Your task to perform on an android device: Do I have any events tomorrow? Image 0: 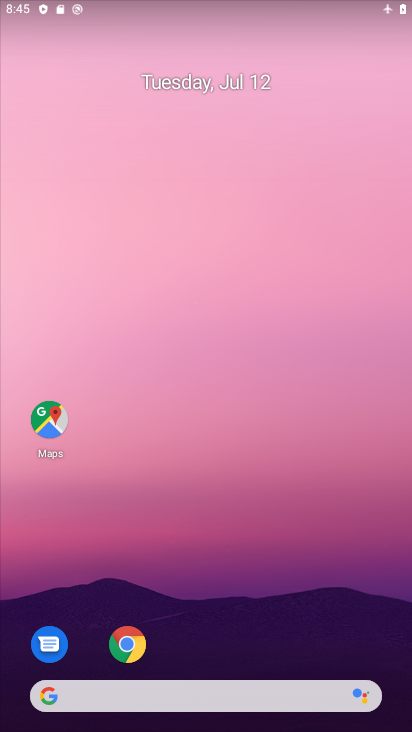
Step 0: drag from (220, 649) to (236, 144)
Your task to perform on an android device: Do I have any events tomorrow? Image 1: 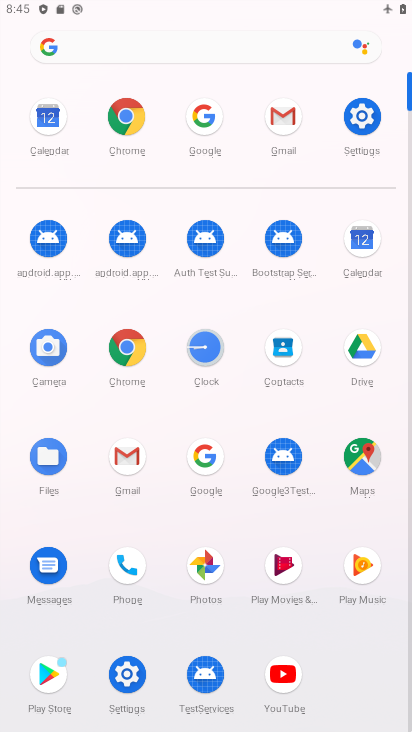
Step 1: click (369, 257)
Your task to perform on an android device: Do I have any events tomorrow? Image 2: 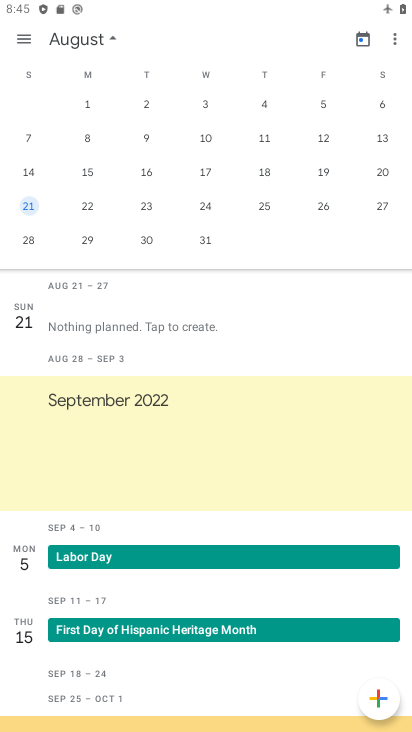
Step 2: click (90, 206)
Your task to perform on an android device: Do I have any events tomorrow? Image 3: 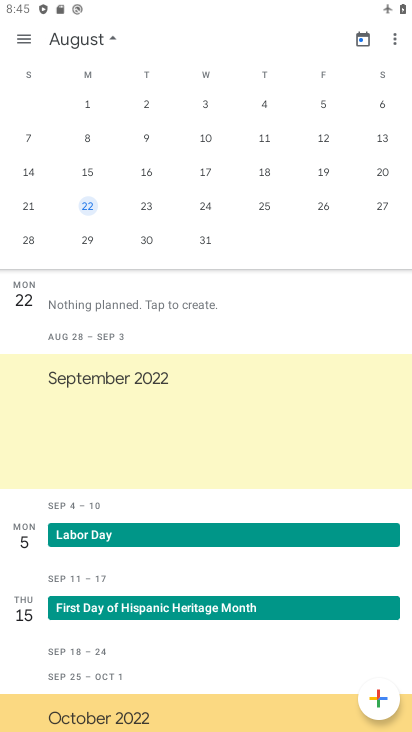
Step 3: task complete